Your task to perform on an android device: clear history in the chrome app Image 0: 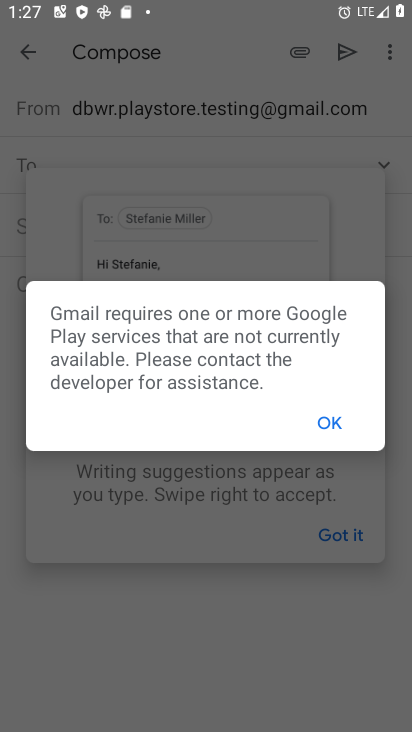
Step 0: press home button
Your task to perform on an android device: clear history in the chrome app Image 1: 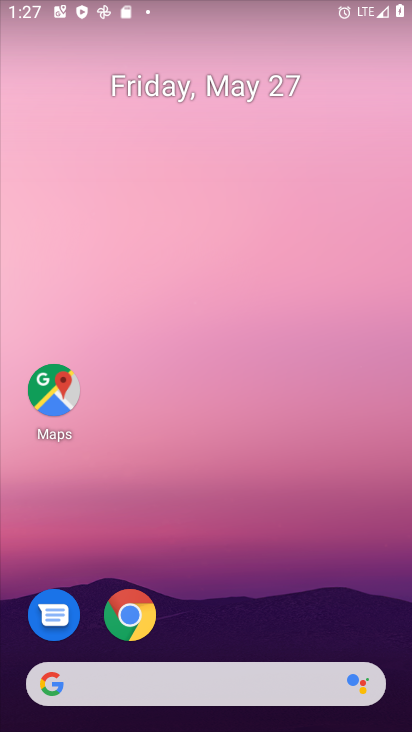
Step 1: drag from (50, 237) to (326, 205)
Your task to perform on an android device: clear history in the chrome app Image 2: 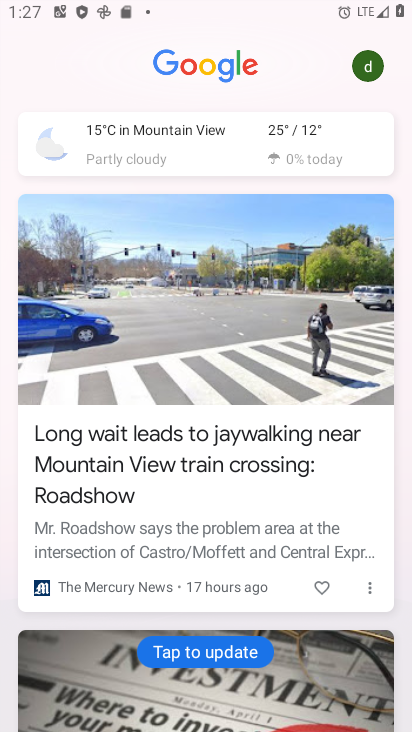
Step 2: press home button
Your task to perform on an android device: clear history in the chrome app Image 3: 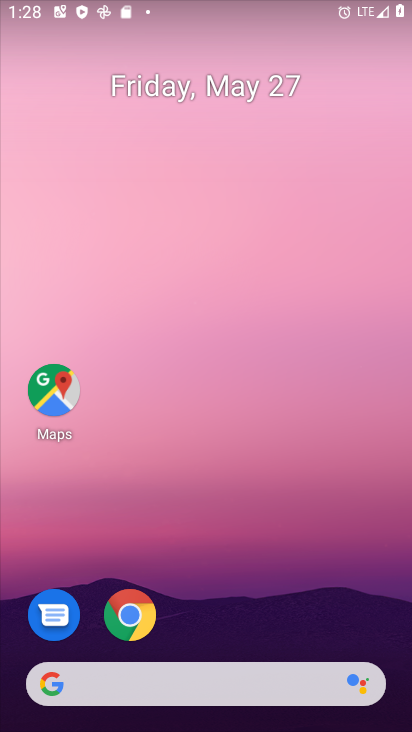
Step 3: drag from (183, 683) to (266, 14)
Your task to perform on an android device: clear history in the chrome app Image 4: 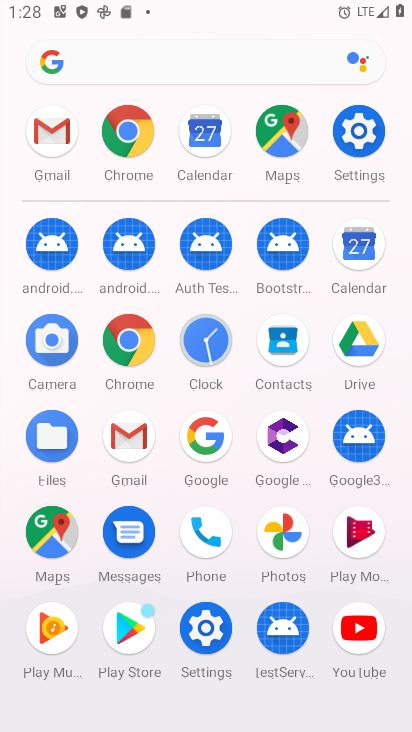
Step 4: click (140, 342)
Your task to perform on an android device: clear history in the chrome app Image 5: 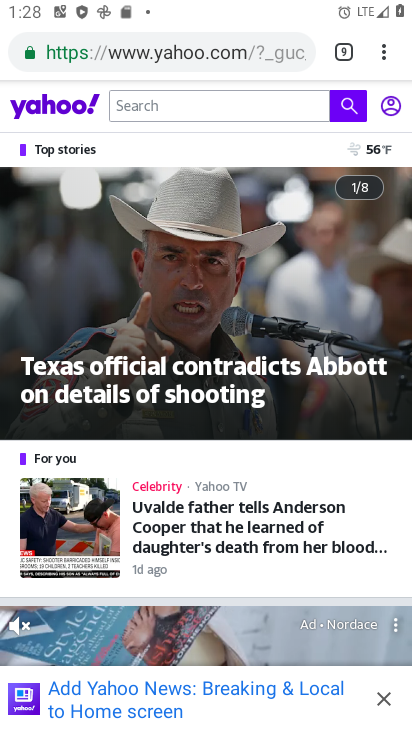
Step 5: drag from (381, 49) to (240, 284)
Your task to perform on an android device: clear history in the chrome app Image 6: 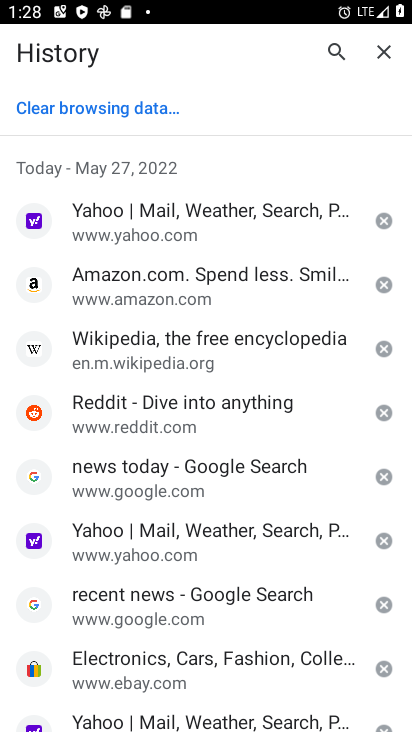
Step 6: click (134, 114)
Your task to perform on an android device: clear history in the chrome app Image 7: 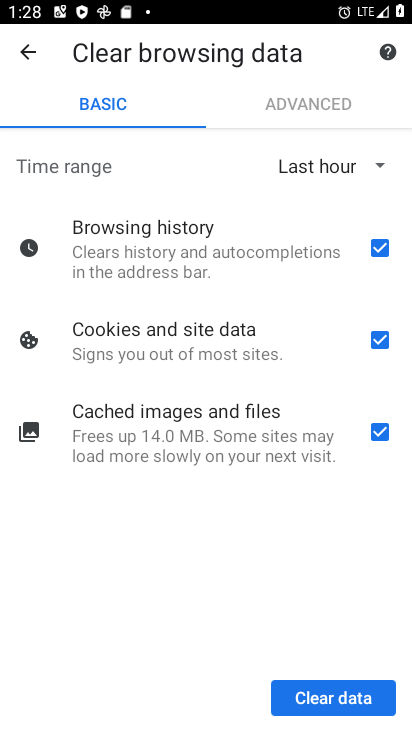
Step 7: click (353, 703)
Your task to perform on an android device: clear history in the chrome app Image 8: 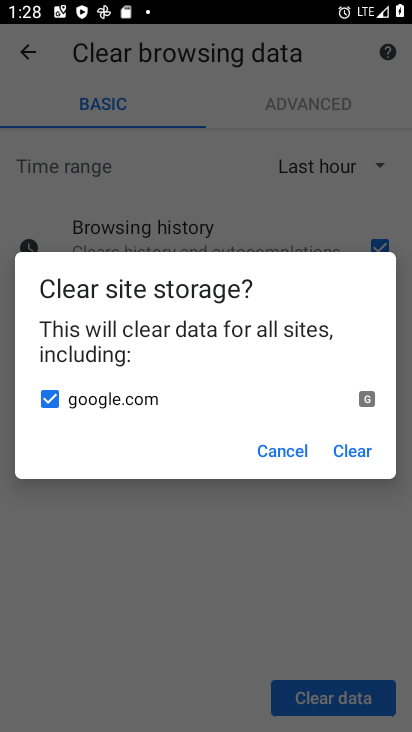
Step 8: click (358, 452)
Your task to perform on an android device: clear history in the chrome app Image 9: 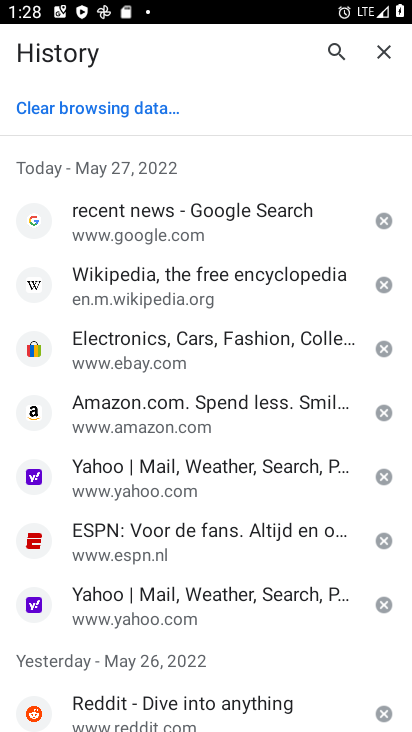
Step 9: click (381, 223)
Your task to perform on an android device: clear history in the chrome app Image 10: 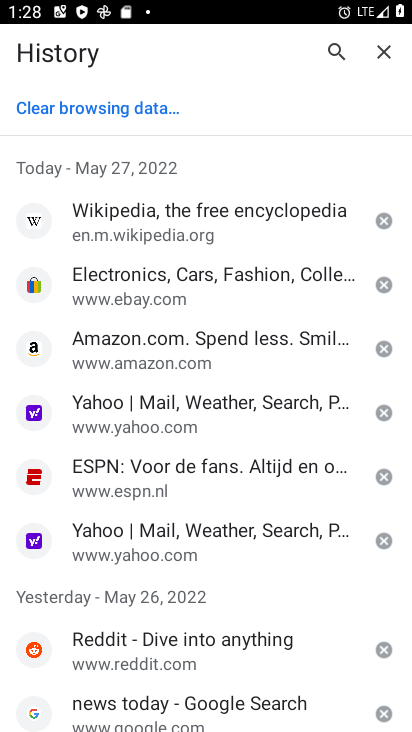
Step 10: click (381, 223)
Your task to perform on an android device: clear history in the chrome app Image 11: 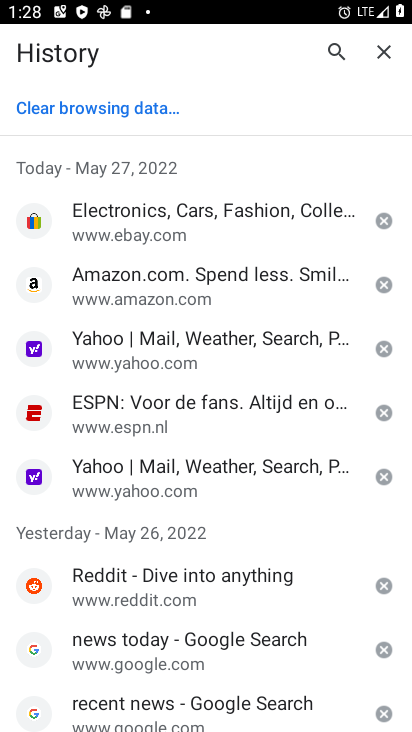
Step 11: click (381, 223)
Your task to perform on an android device: clear history in the chrome app Image 12: 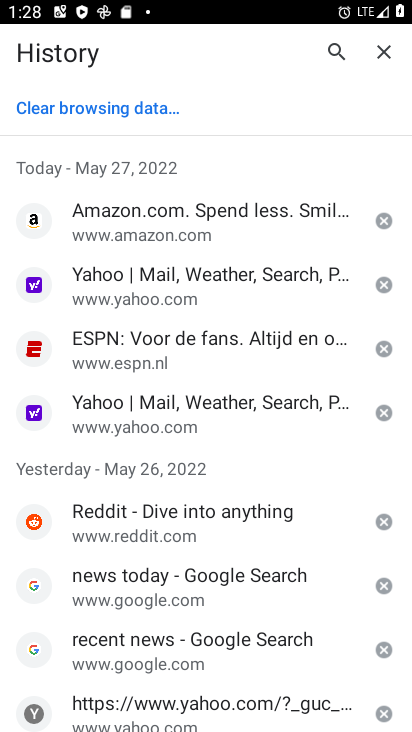
Step 12: click (381, 223)
Your task to perform on an android device: clear history in the chrome app Image 13: 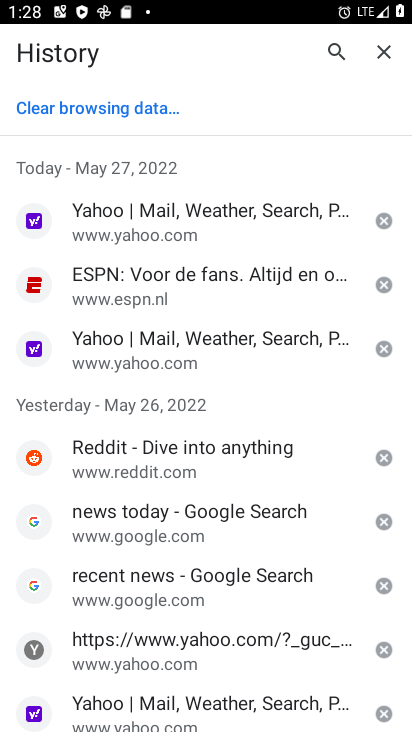
Step 13: click (383, 214)
Your task to perform on an android device: clear history in the chrome app Image 14: 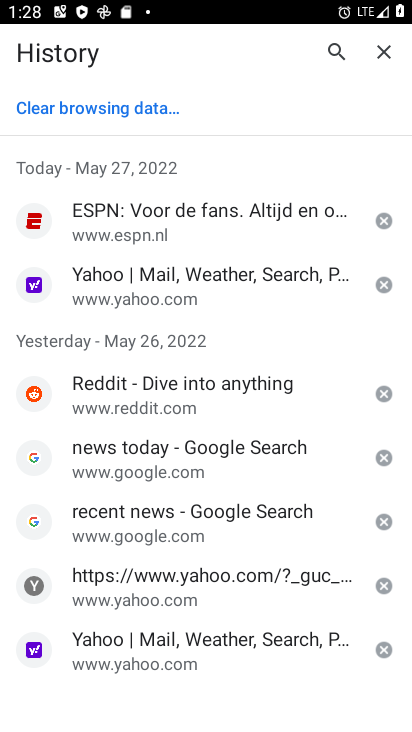
Step 14: click (383, 214)
Your task to perform on an android device: clear history in the chrome app Image 15: 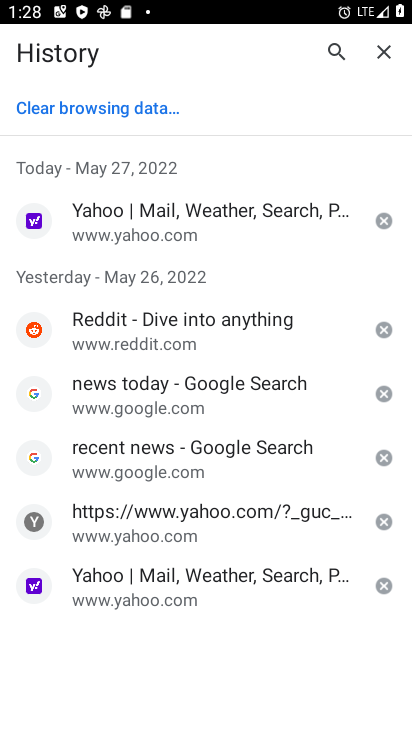
Step 15: click (383, 214)
Your task to perform on an android device: clear history in the chrome app Image 16: 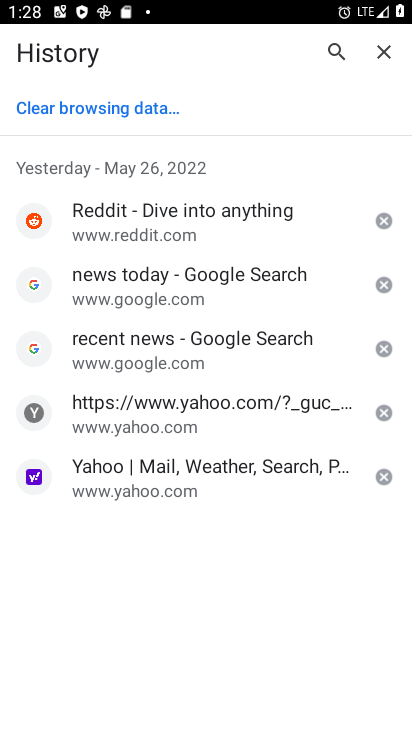
Step 16: click (383, 220)
Your task to perform on an android device: clear history in the chrome app Image 17: 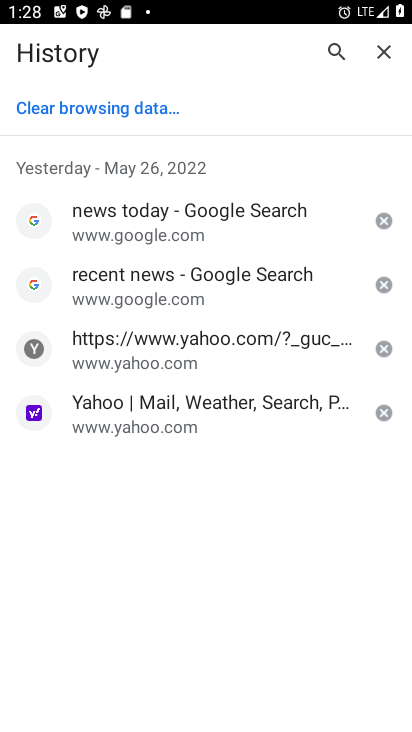
Step 17: click (382, 218)
Your task to perform on an android device: clear history in the chrome app Image 18: 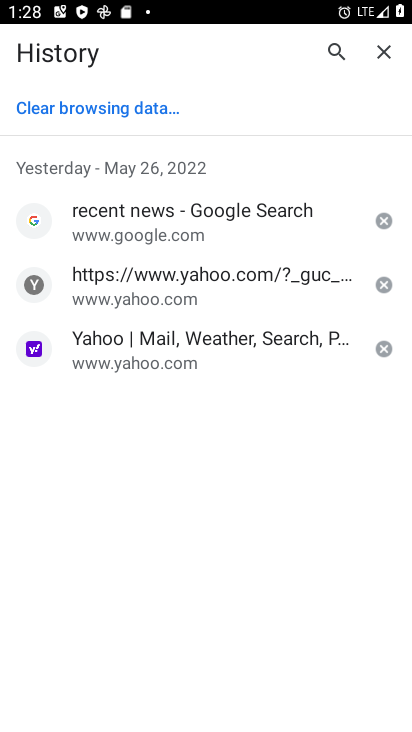
Step 18: click (382, 218)
Your task to perform on an android device: clear history in the chrome app Image 19: 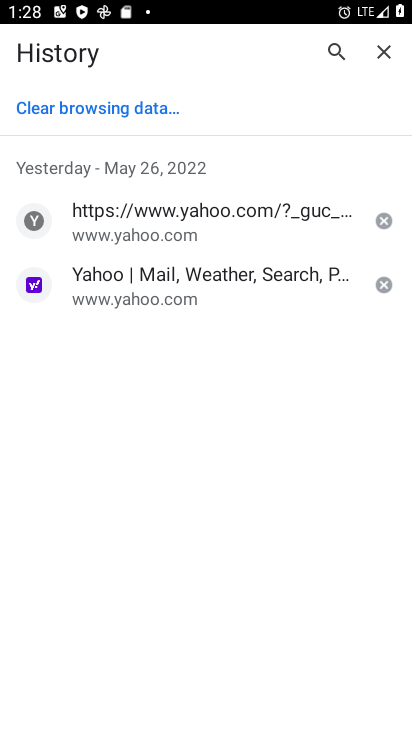
Step 19: click (382, 218)
Your task to perform on an android device: clear history in the chrome app Image 20: 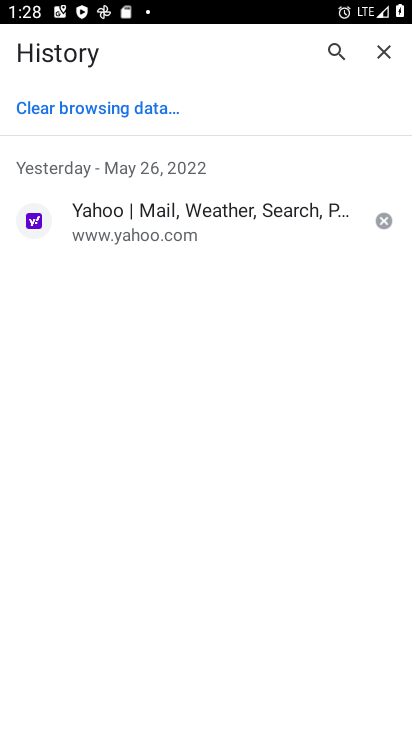
Step 20: click (382, 218)
Your task to perform on an android device: clear history in the chrome app Image 21: 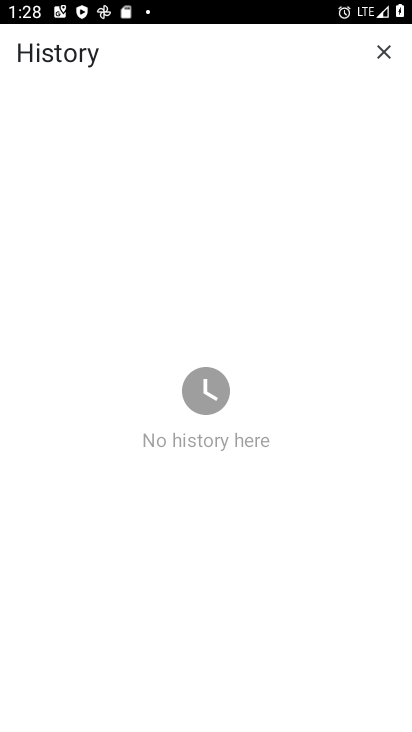
Step 21: task complete